Your task to perform on an android device: Search for the best rated coffee table on Target. Image 0: 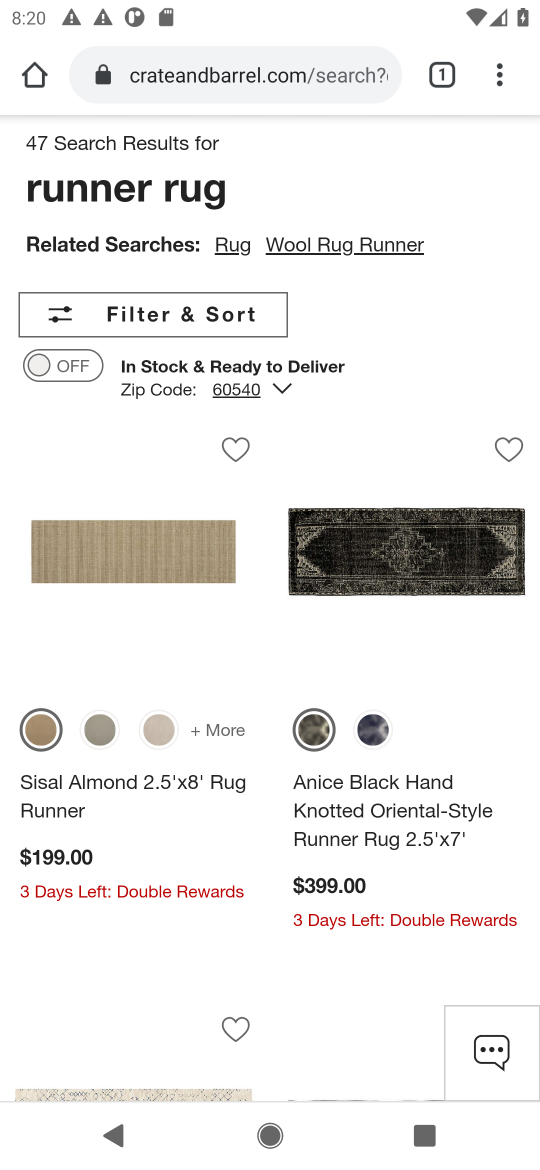
Step 0: click (314, 74)
Your task to perform on an android device: Search for the best rated coffee table on Target. Image 1: 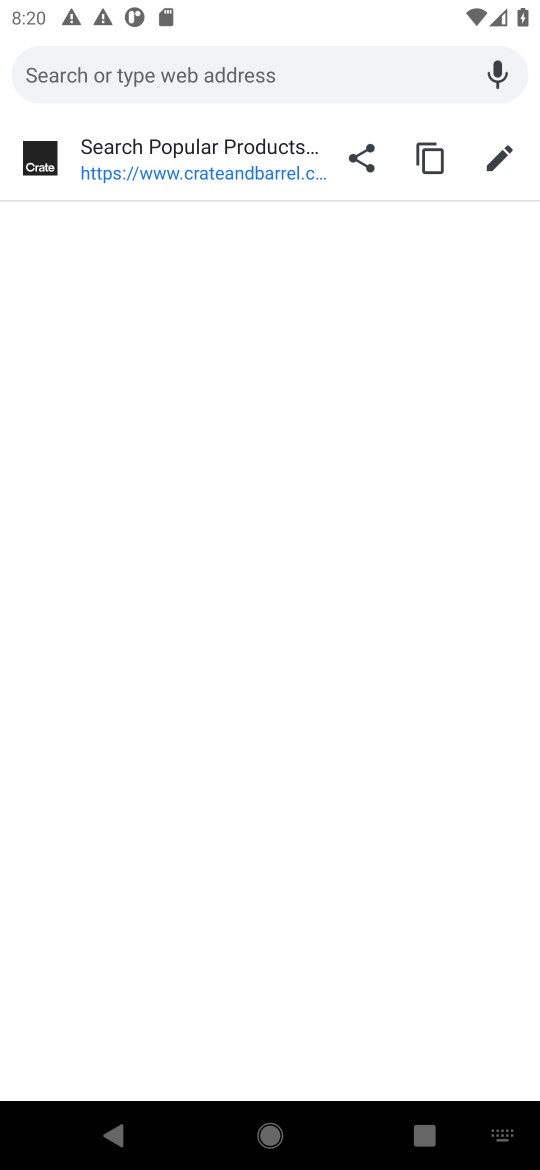
Step 1: type "target"
Your task to perform on an android device: Search for the best rated coffee table on Target. Image 2: 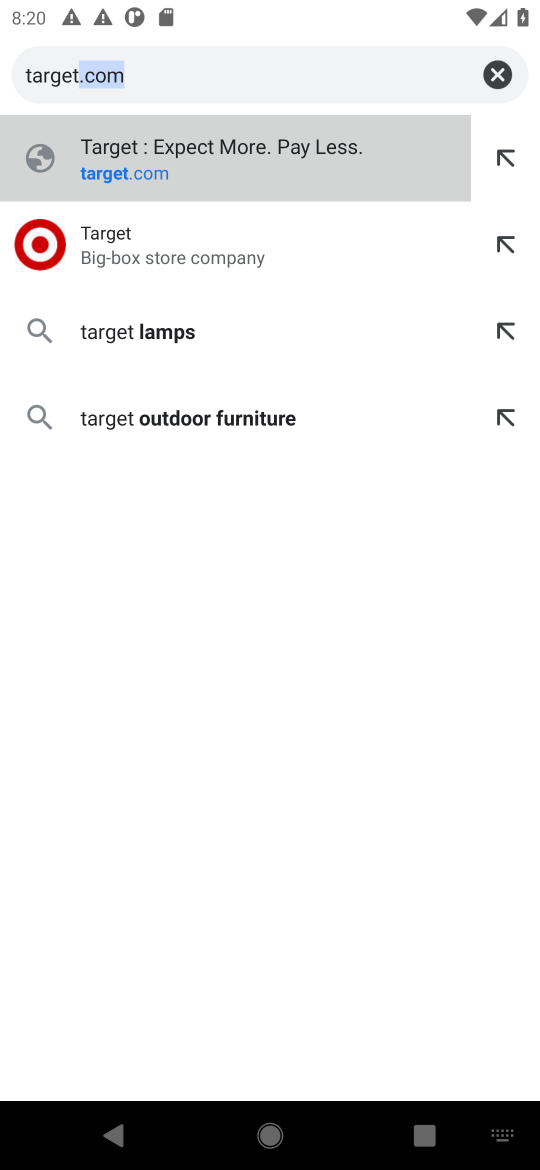
Step 2: click (101, 244)
Your task to perform on an android device: Search for the best rated coffee table on Target. Image 3: 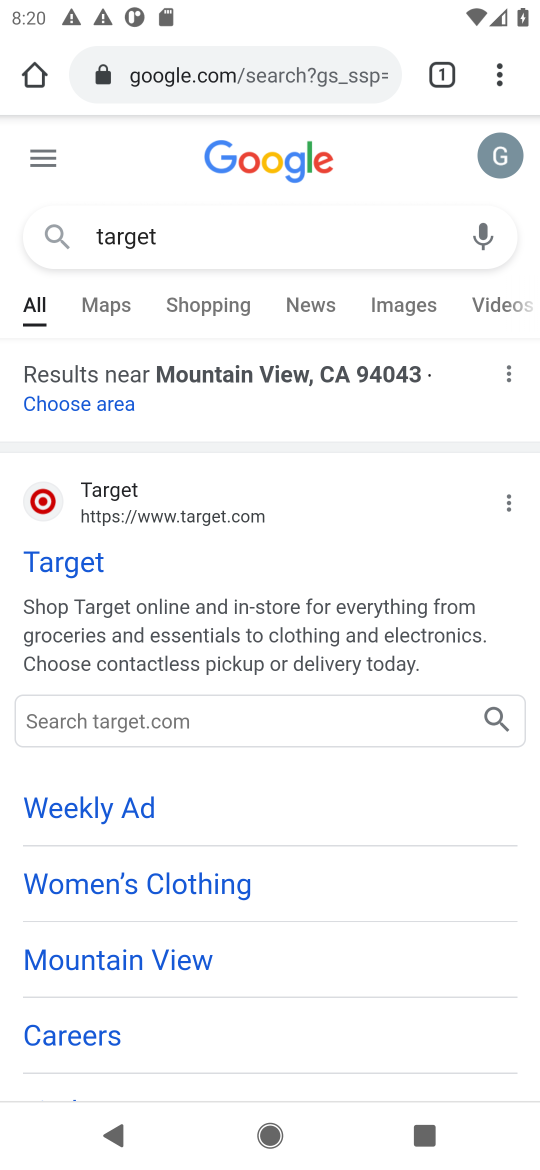
Step 3: click (79, 553)
Your task to perform on an android device: Search for the best rated coffee table on Target. Image 4: 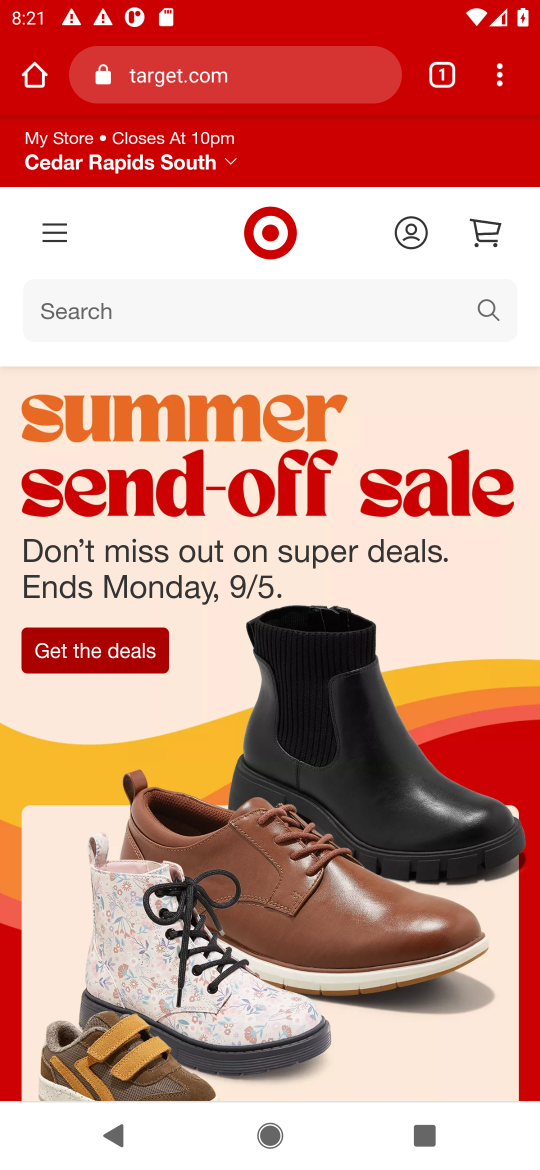
Step 4: click (449, 300)
Your task to perform on an android device: Search for the best rated coffee table on Target. Image 5: 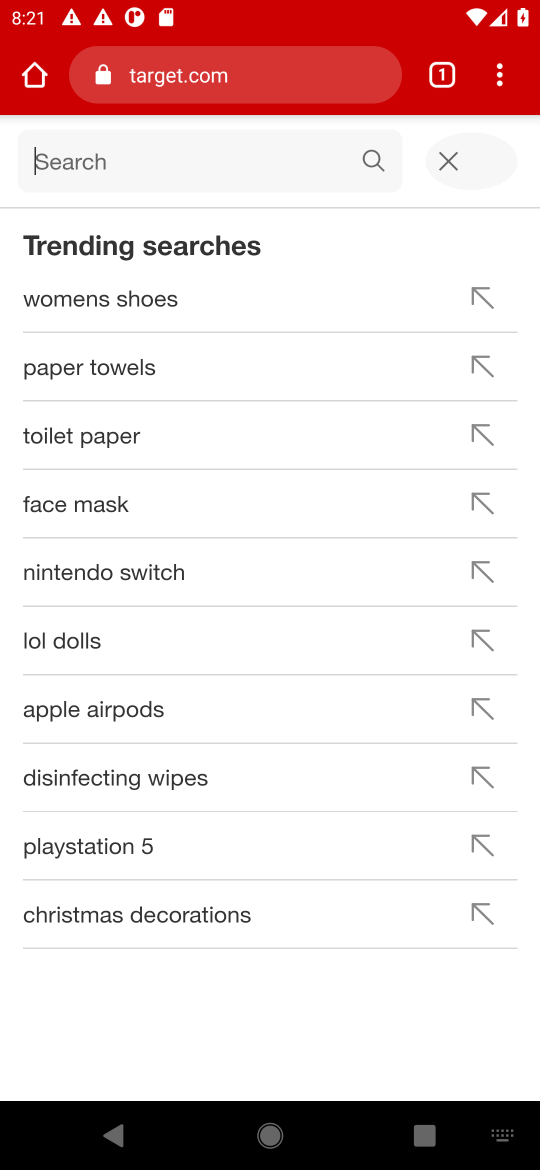
Step 5: type "coffee table"
Your task to perform on an android device: Search for the best rated coffee table on Target. Image 6: 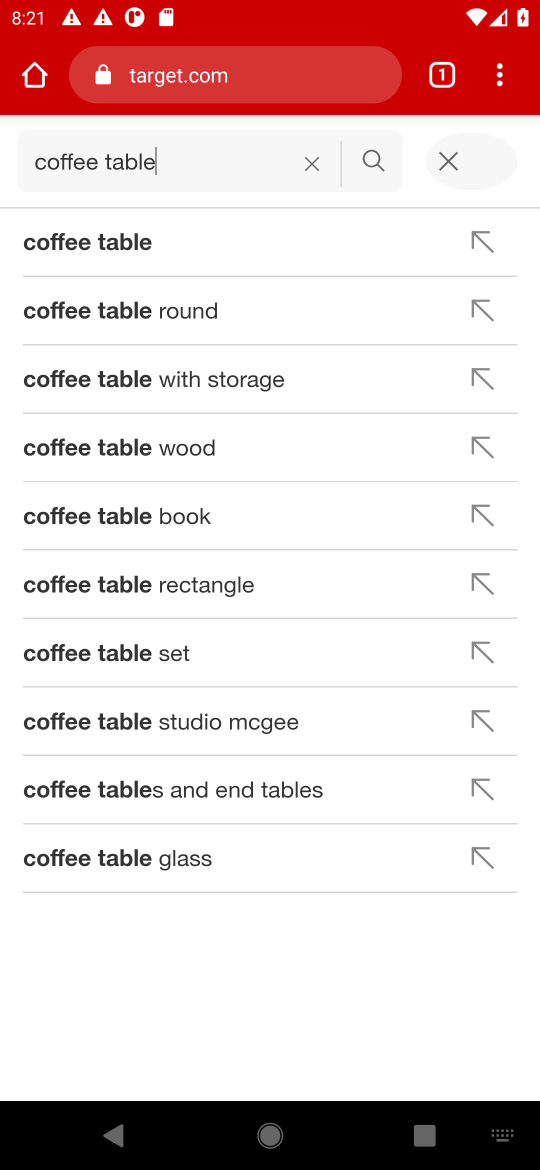
Step 6: click (218, 250)
Your task to perform on an android device: Search for the best rated coffee table on Target. Image 7: 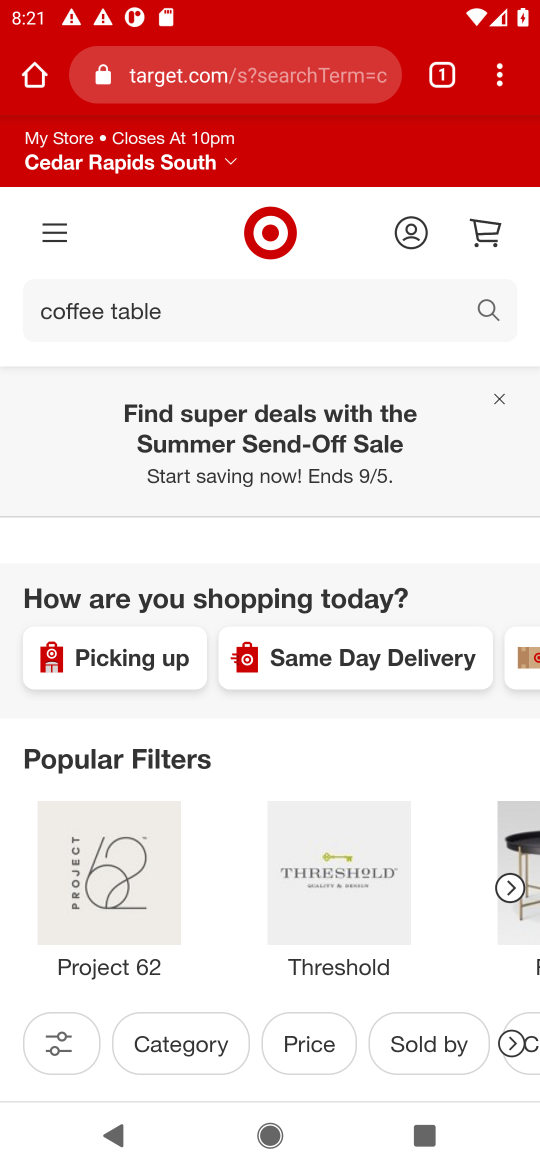
Step 7: drag from (375, 620) to (344, 384)
Your task to perform on an android device: Search for the best rated coffee table on Target. Image 8: 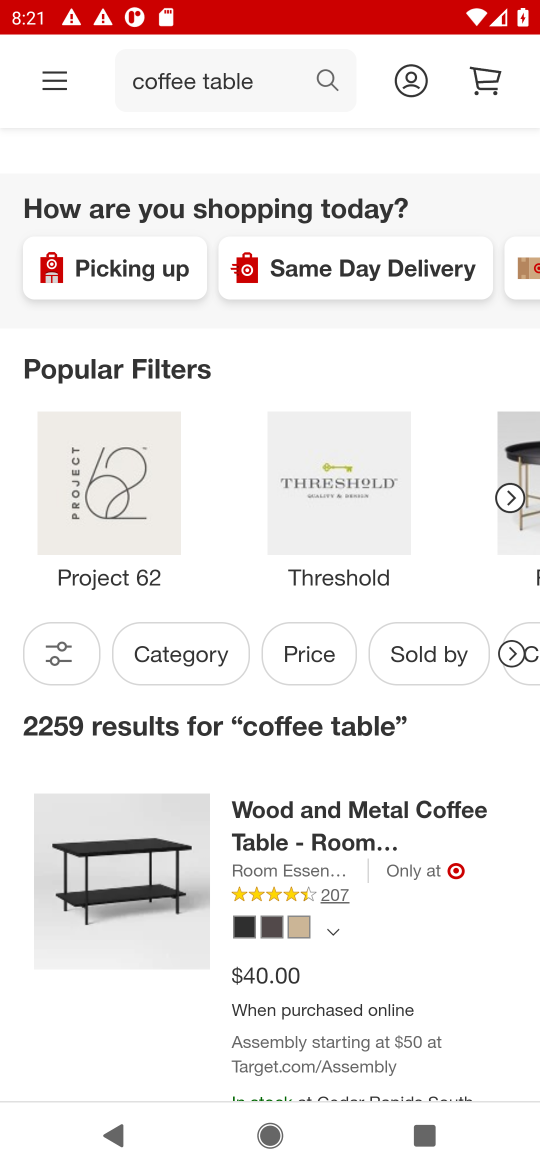
Step 8: click (56, 652)
Your task to perform on an android device: Search for the best rated coffee table on Target. Image 9: 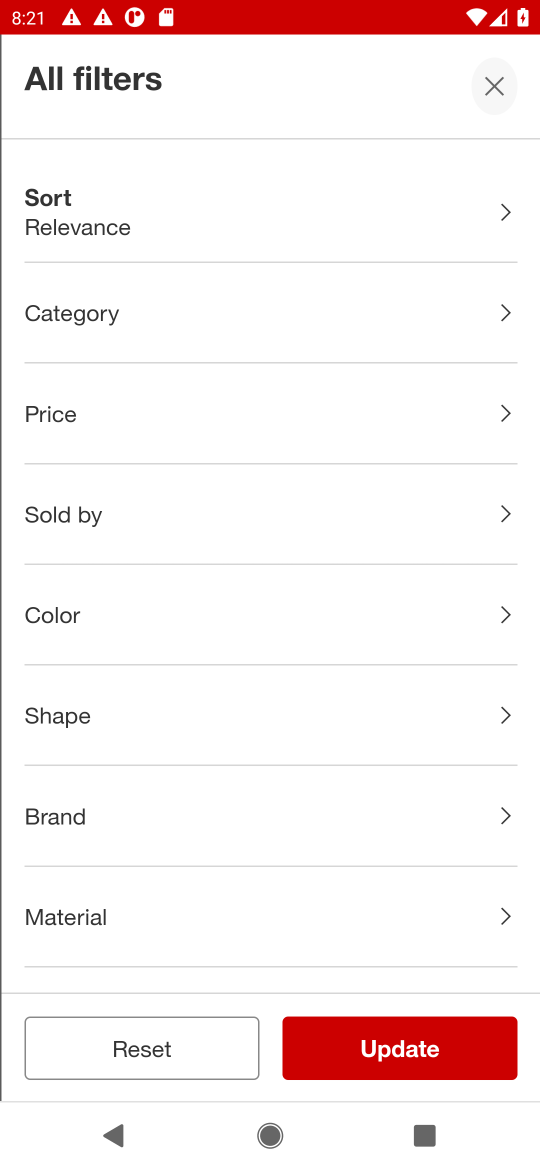
Step 9: click (193, 217)
Your task to perform on an android device: Search for the best rated coffee table on Target. Image 10: 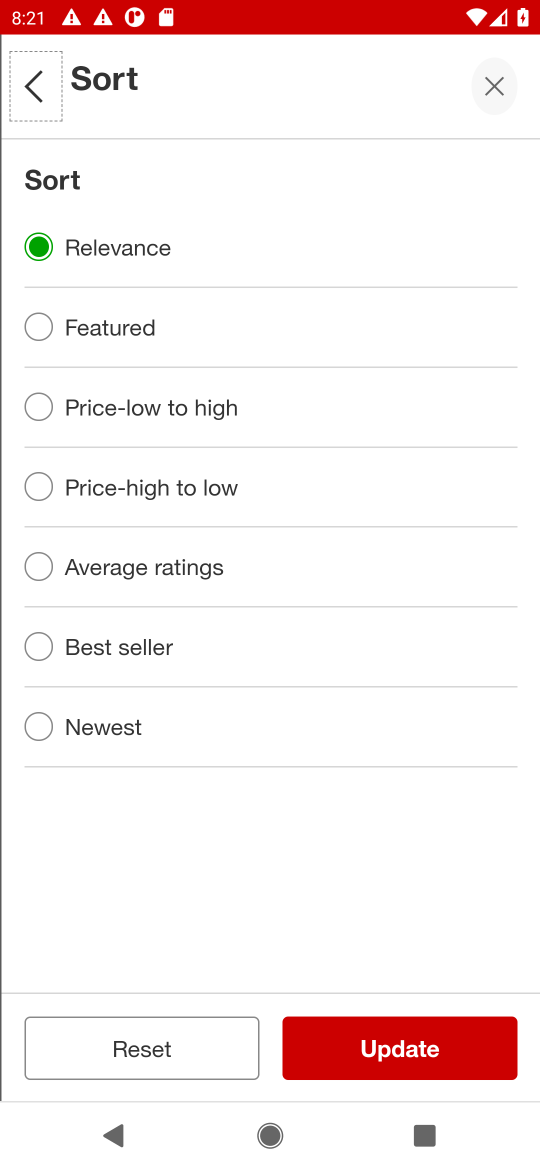
Step 10: click (103, 652)
Your task to perform on an android device: Search for the best rated coffee table on Target. Image 11: 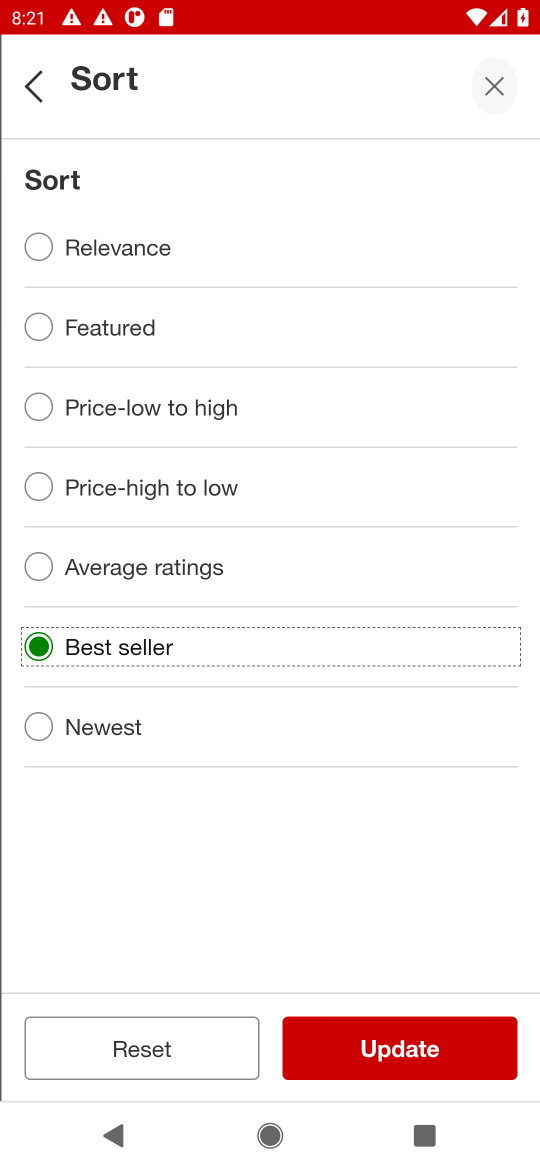
Step 11: click (454, 1052)
Your task to perform on an android device: Search for the best rated coffee table on Target. Image 12: 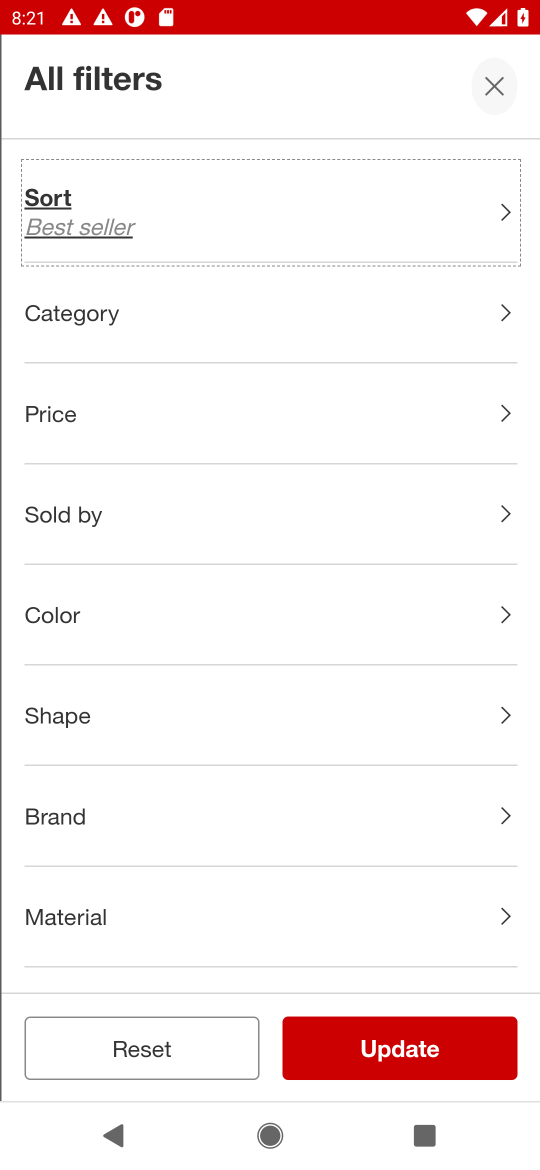
Step 12: click (454, 1052)
Your task to perform on an android device: Search for the best rated coffee table on Target. Image 13: 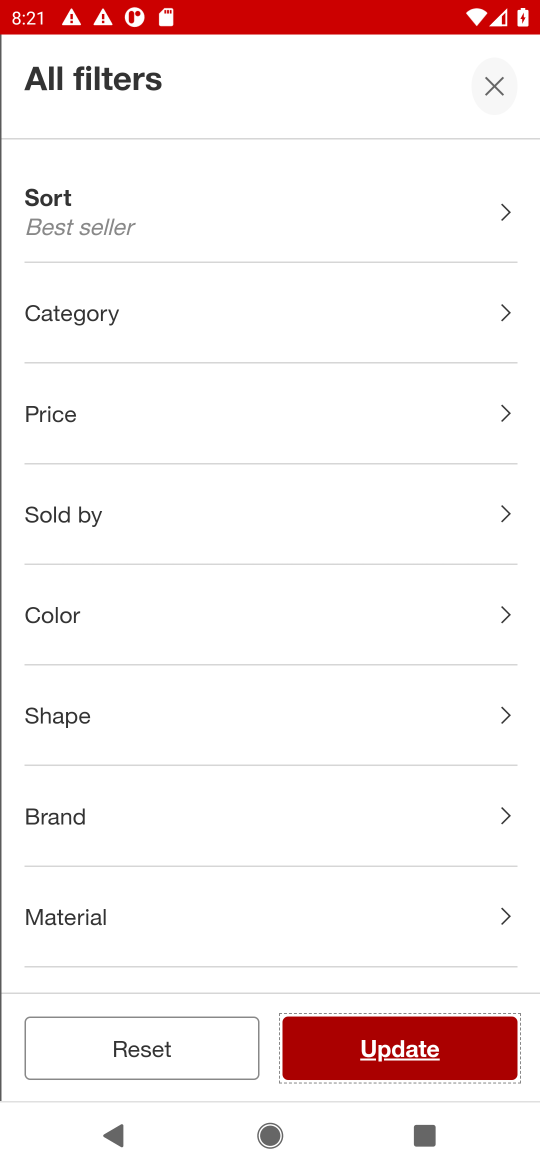
Step 13: click (388, 1050)
Your task to perform on an android device: Search for the best rated coffee table on Target. Image 14: 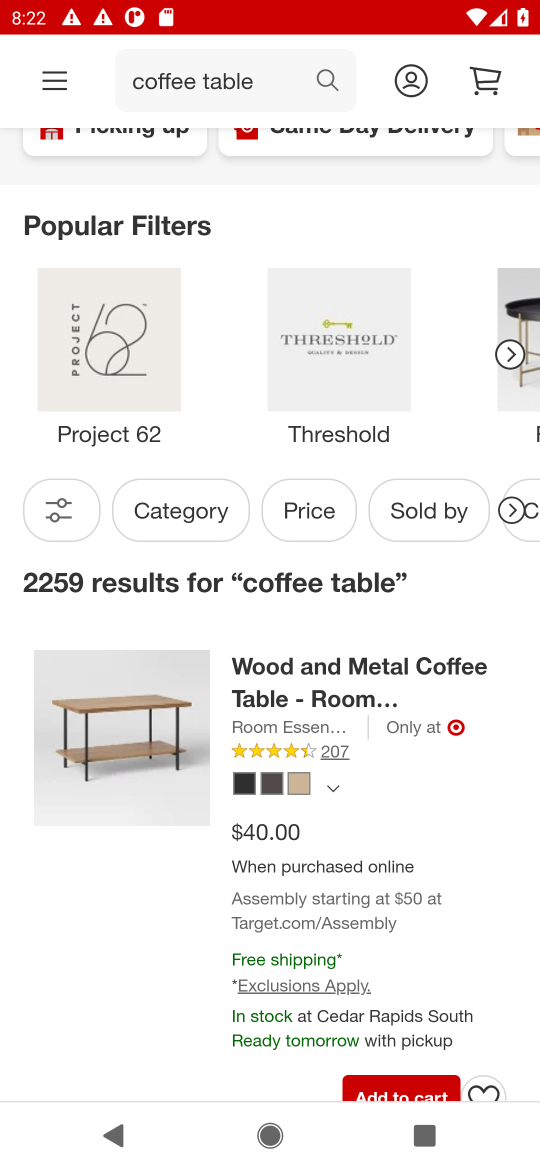
Step 14: task complete